Your task to perform on an android device: Play the last video I watched on Youtube Image 0: 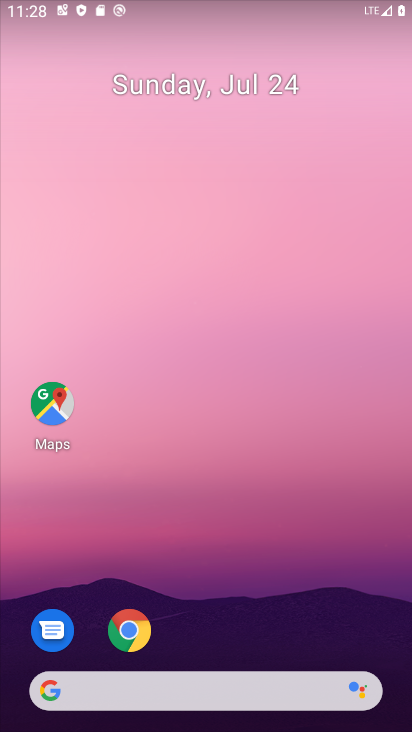
Step 0: drag from (185, 618) to (269, 165)
Your task to perform on an android device: Play the last video I watched on Youtube Image 1: 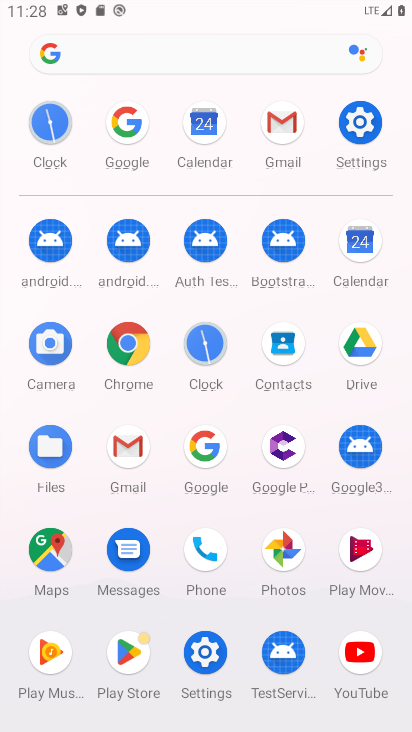
Step 1: click (358, 644)
Your task to perform on an android device: Play the last video I watched on Youtube Image 2: 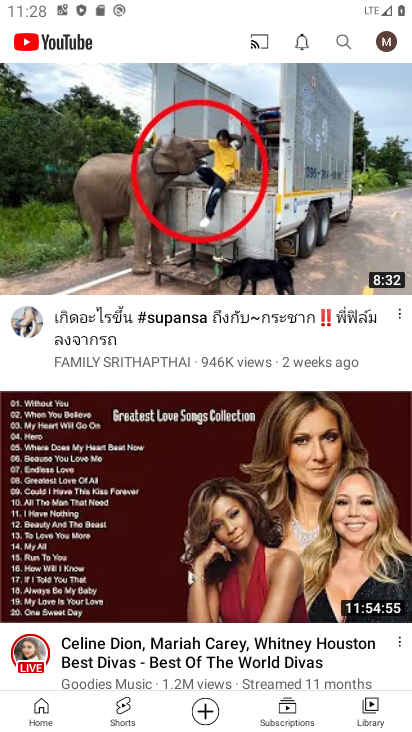
Step 2: click (372, 716)
Your task to perform on an android device: Play the last video I watched on Youtube Image 3: 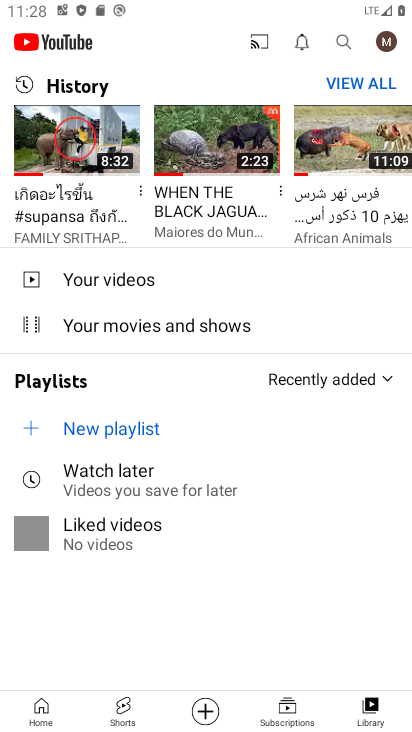
Step 3: click (99, 121)
Your task to perform on an android device: Play the last video I watched on Youtube Image 4: 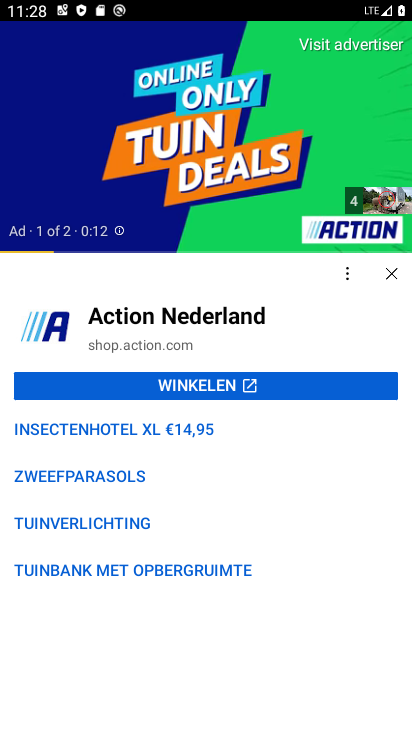
Step 4: click (216, 146)
Your task to perform on an android device: Play the last video I watched on Youtube Image 5: 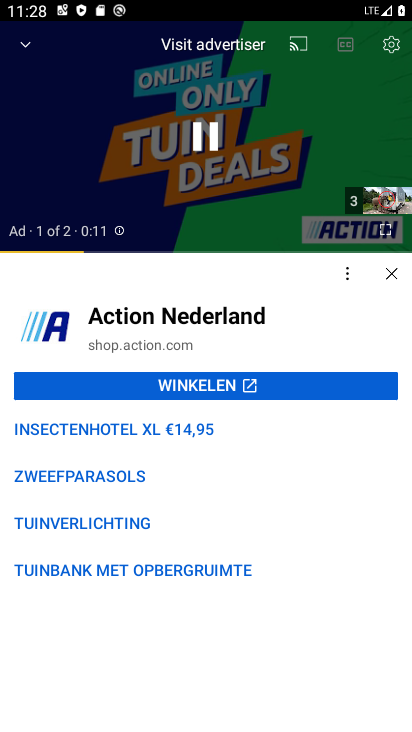
Step 5: click (216, 146)
Your task to perform on an android device: Play the last video I watched on Youtube Image 6: 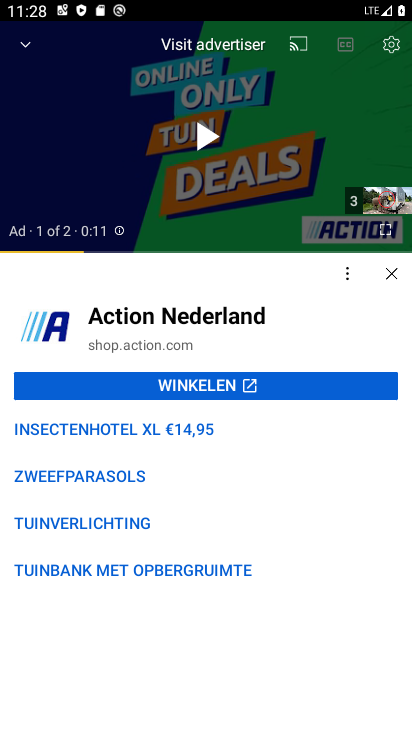
Step 6: click (200, 136)
Your task to perform on an android device: Play the last video I watched on Youtube Image 7: 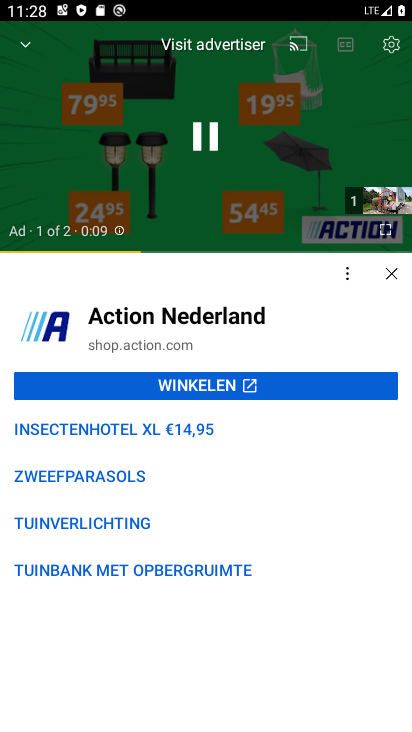
Step 7: task complete